Your task to perform on an android device: Open display settings Image 0: 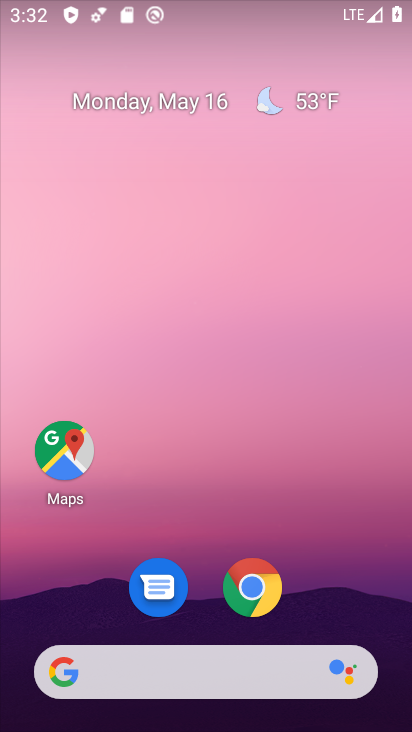
Step 0: drag from (100, 641) to (215, 128)
Your task to perform on an android device: Open display settings Image 1: 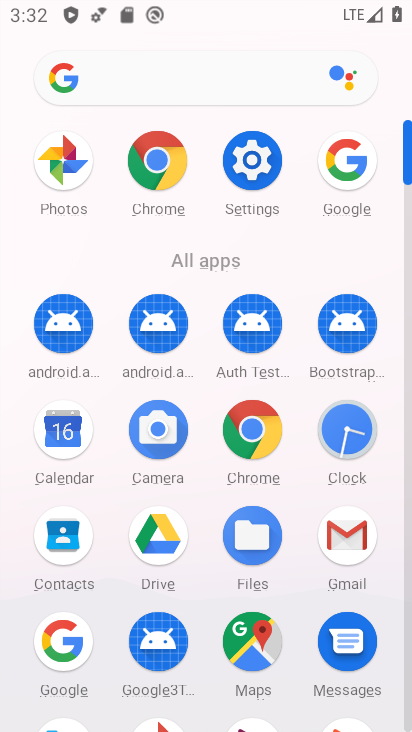
Step 1: click (250, 150)
Your task to perform on an android device: Open display settings Image 2: 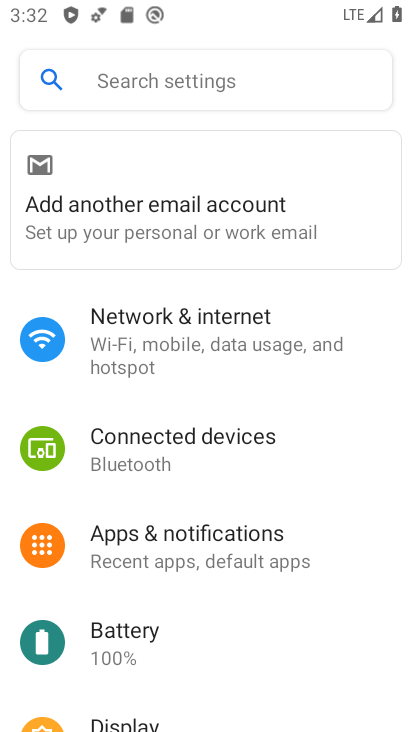
Step 2: drag from (174, 705) to (321, 492)
Your task to perform on an android device: Open display settings Image 3: 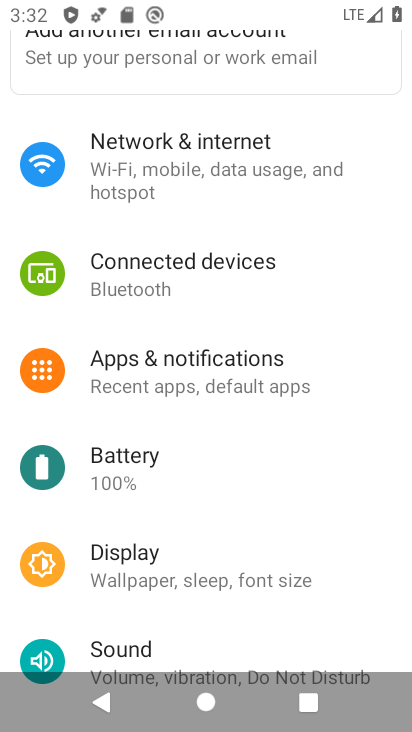
Step 3: click (226, 577)
Your task to perform on an android device: Open display settings Image 4: 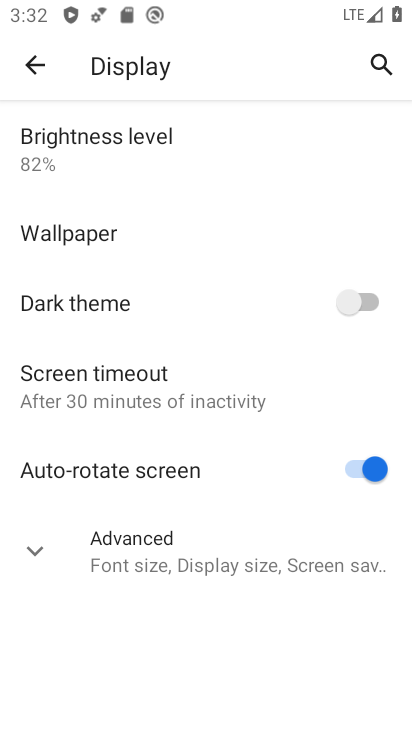
Step 4: task complete